Your task to perform on an android device: Clear the cart on costco.com. Add "macbook pro 15 inch" to the cart on costco.com Image 0: 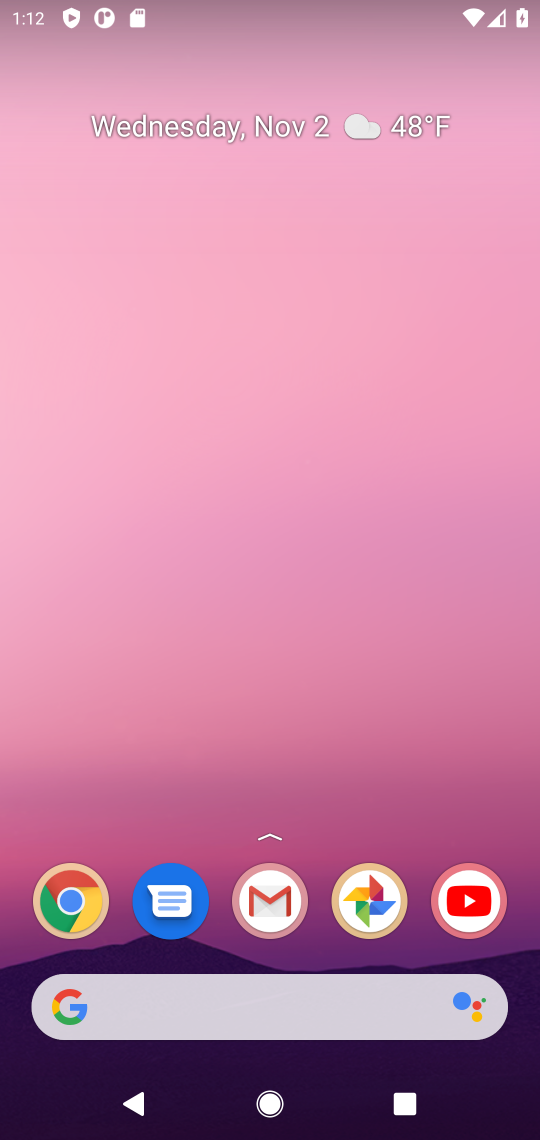
Step 0: drag from (313, 957) to (391, 97)
Your task to perform on an android device: Clear the cart on costco.com. Add "macbook pro 15 inch" to the cart on costco.com Image 1: 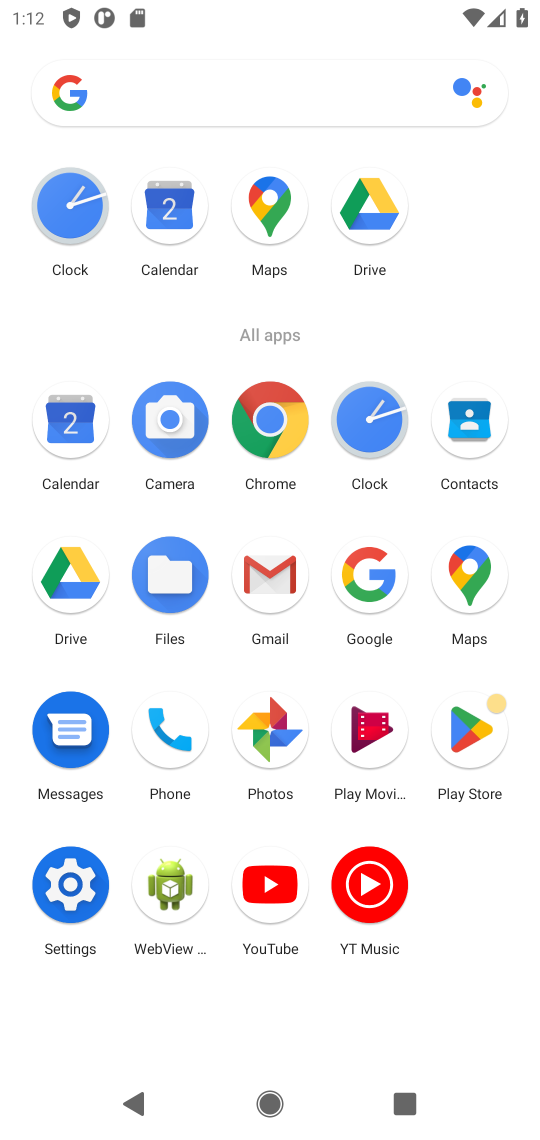
Step 1: click (266, 430)
Your task to perform on an android device: Clear the cart on costco.com. Add "macbook pro 15 inch" to the cart on costco.com Image 2: 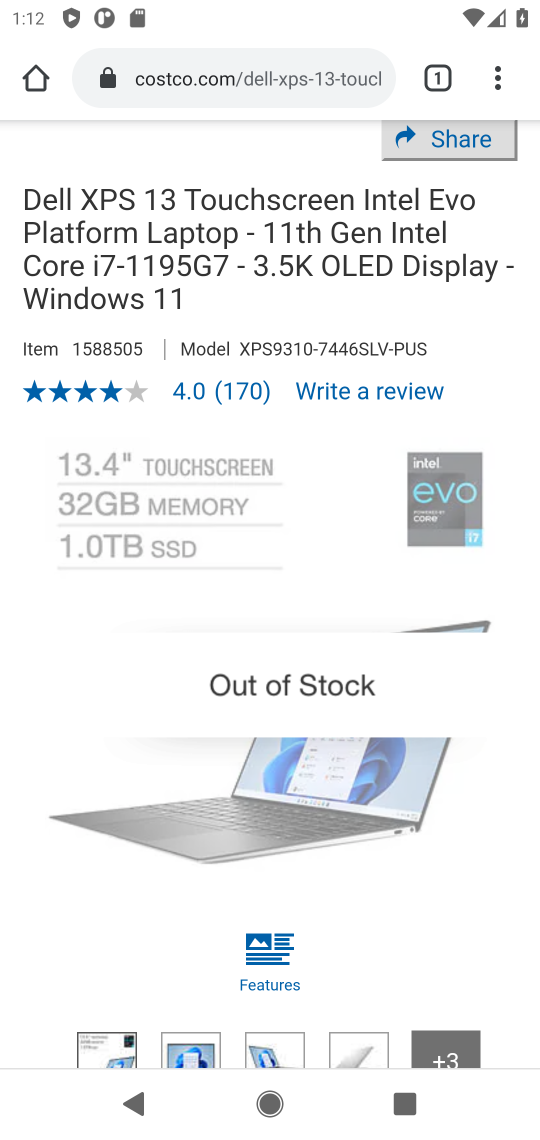
Step 2: click (242, 85)
Your task to perform on an android device: Clear the cart on costco.com. Add "macbook pro 15 inch" to the cart on costco.com Image 3: 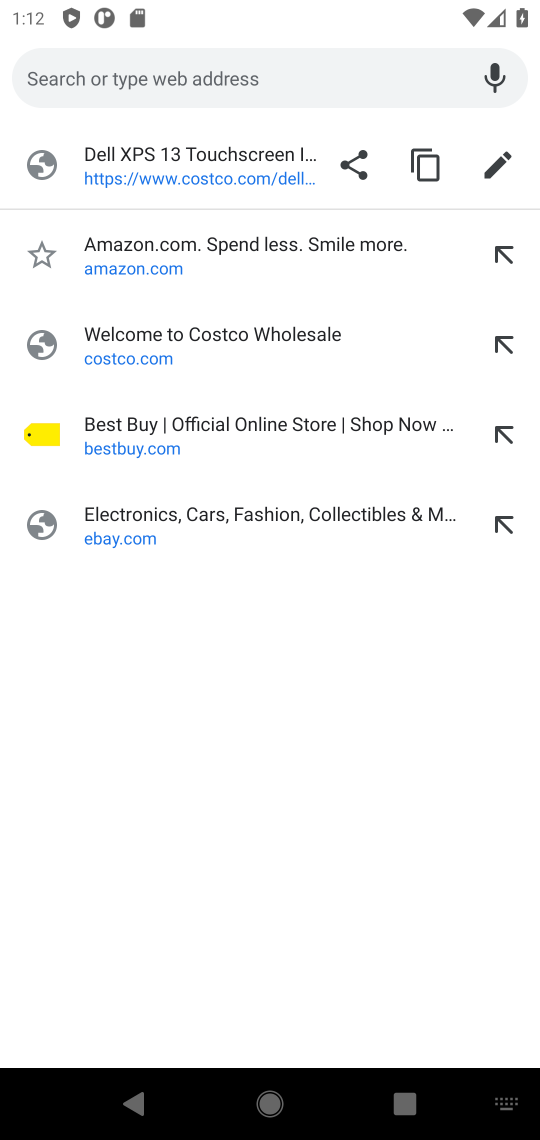
Step 3: type "costco.com"
Your task to perform on an android device: Clear the cart on costco.com. Add "macbook pro 15 inch" to the cart on costco.com Image 4: 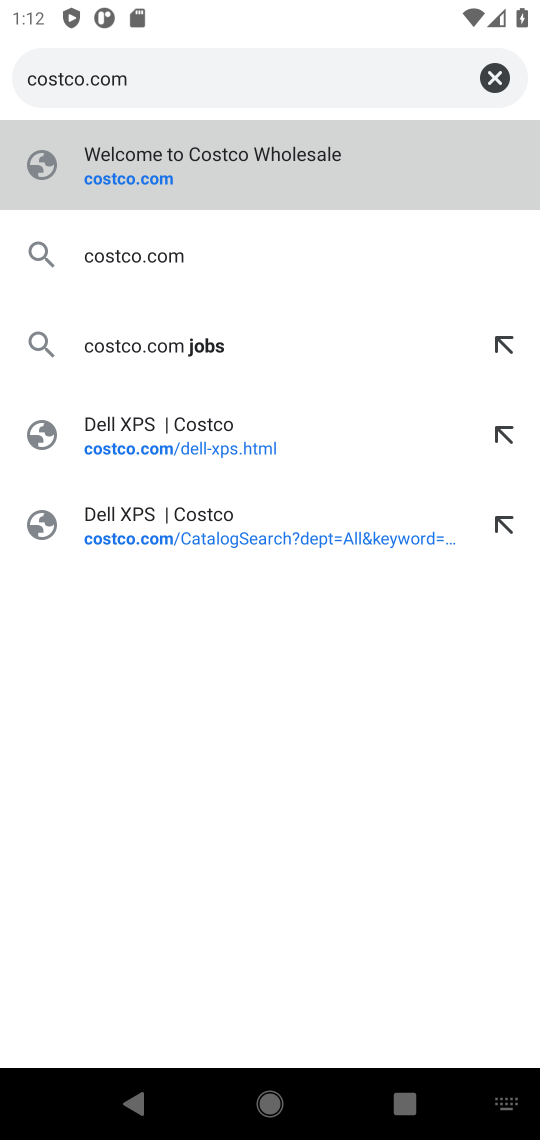
Step 4: press enter
Your task to perform on an android device: Clear the cart on costco.com. Add "macbook pro 15 inch" to the cart on costco.com Image 5: 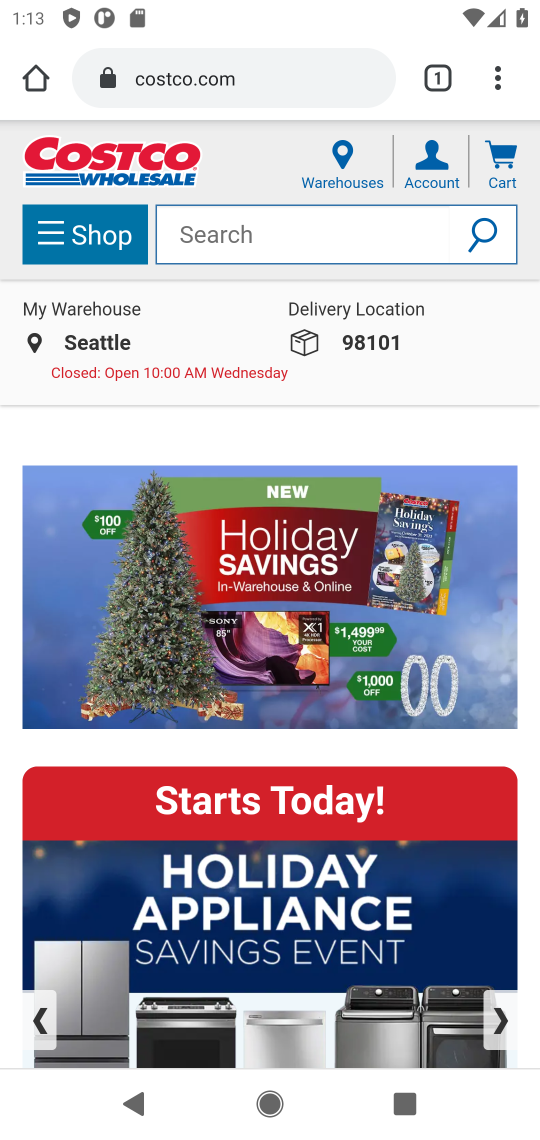
Step 5: click (504, 166)
Your task to perform on an android device: Clear the cart on costco.com. Add "macbook pro 15 inch" to the cart on costco.com Image 6: 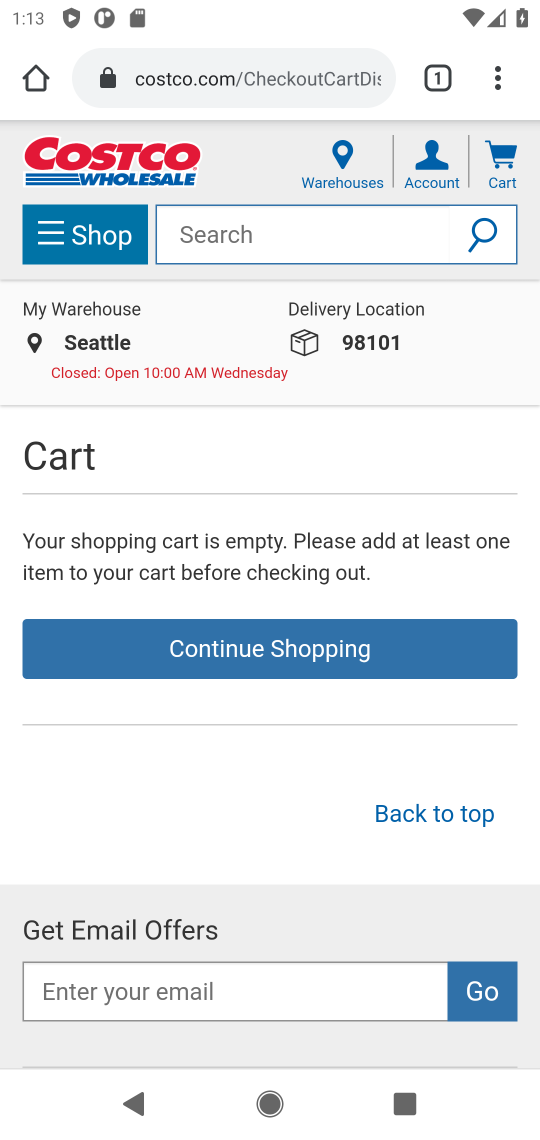
Step 6: click (287, 220)
Your task to perform on an android device: Clear the cart on costco.com. Add "macbook pro 15 inch" to the cart on costco.com Image 7: 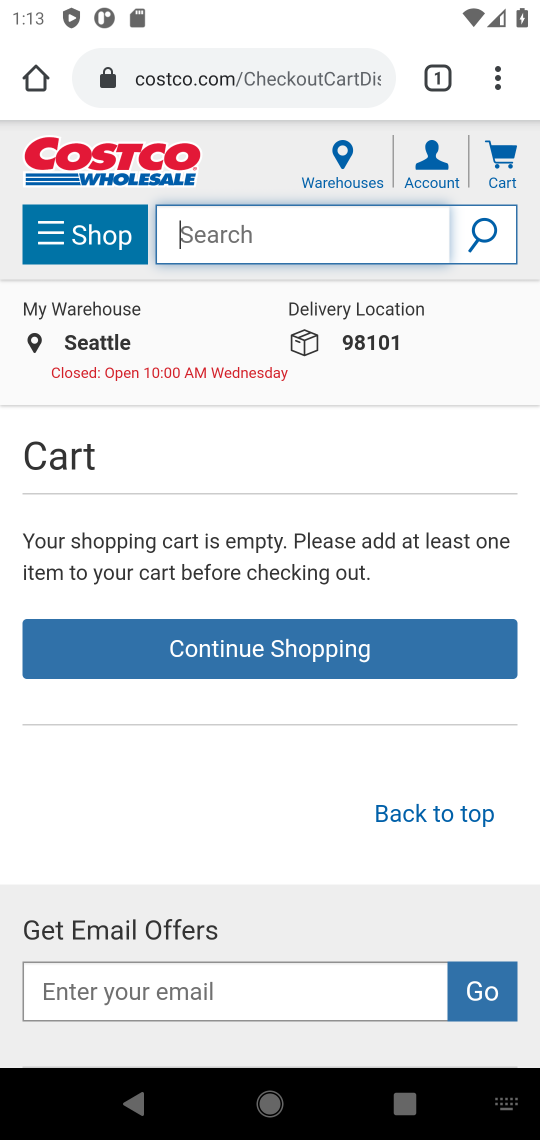
Step 7: type "macbook pron15 inch"
Your task to perform on an android device: Clear the cart on costco.com. Add "macbook pro 15 inch" to the cart on costco.com Image 8: 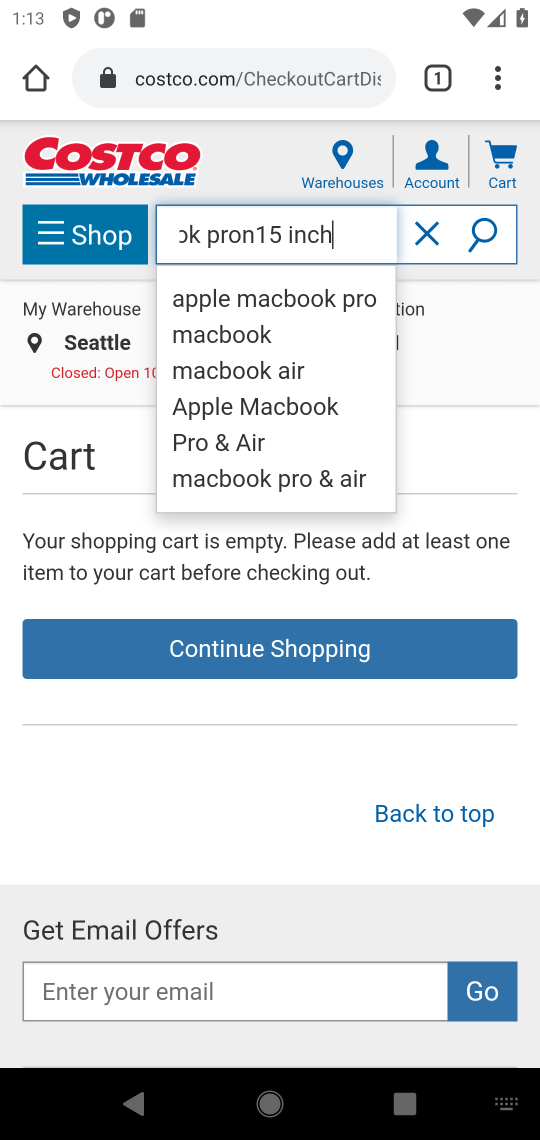
Step 8: press enter
Your task to perform on an android device: Clear the cart on costco.com. Add "macbook pro 15 inch" to the cart on costco.com Image 9: 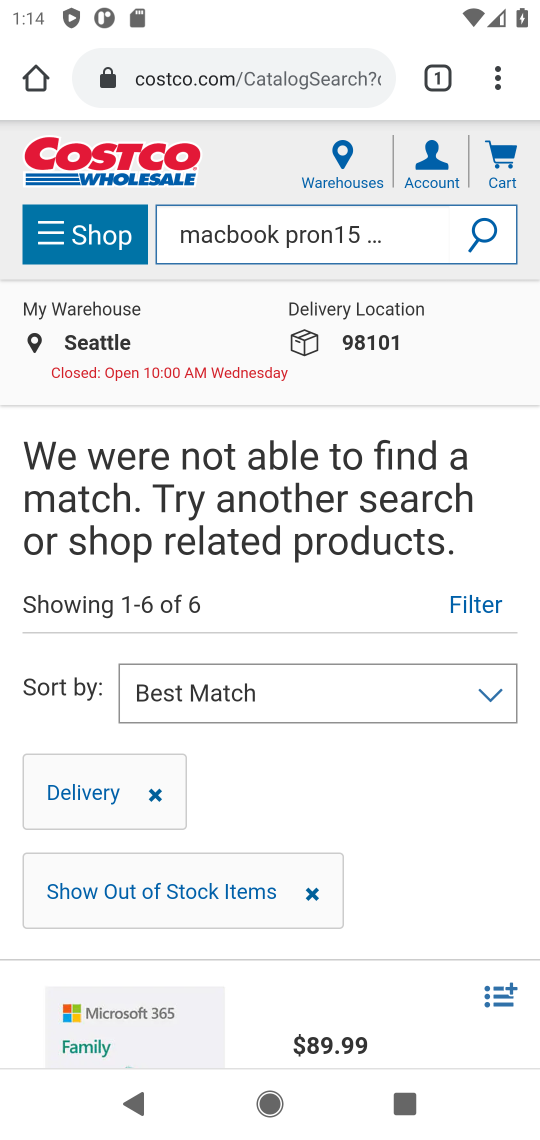
Step 9: click (384, 232)
Your task to perform on an android device: Clear the cart on costco.com. Add "macbook pro 15 inch" to the cart on costco.com Image 10: 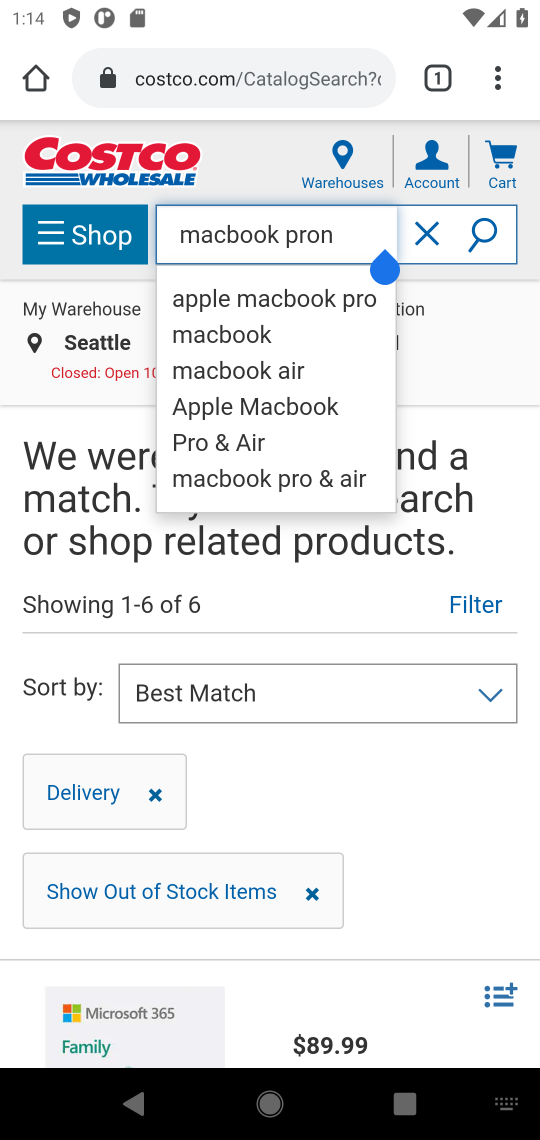
Step 10: click (426, 227)
Your task to perform on an android device: Clear the cart on costco.com. Add "macbook pro 15 inch" to the cart on costco.com Image 11: 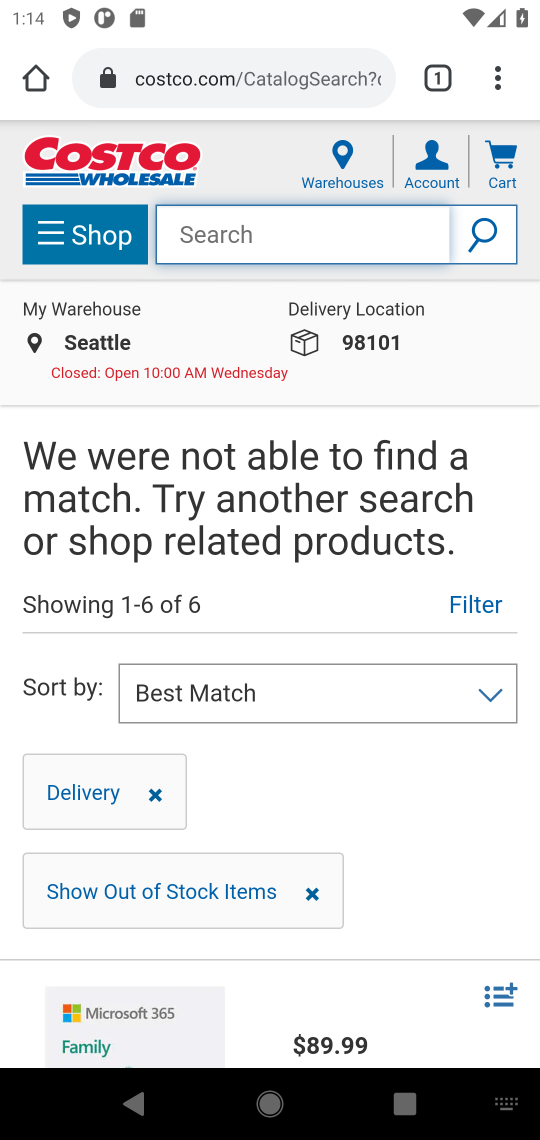
Step 11: type "macbook pro 15 inch"
Your task to perform on an android device: Clear the cart on costco.com. Add "macbook pro 15 inch" to the cart on costco.com Image 12: 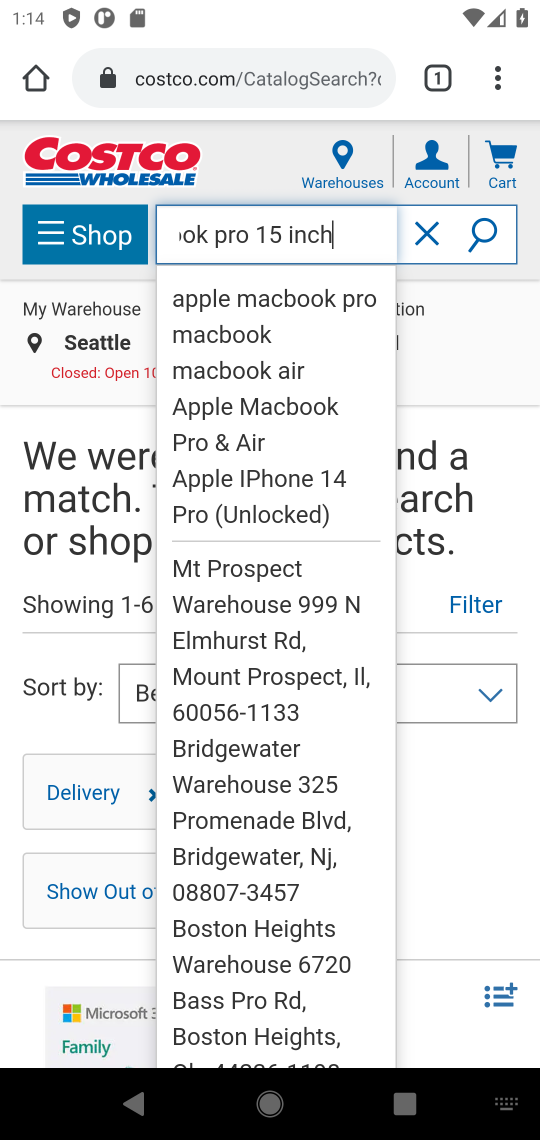
Step 12: press enter
Your task to perform on an android device: Clear the cart on costco.com. Add "macbook pro 15 inch" to the cart on costco.com Image 13: 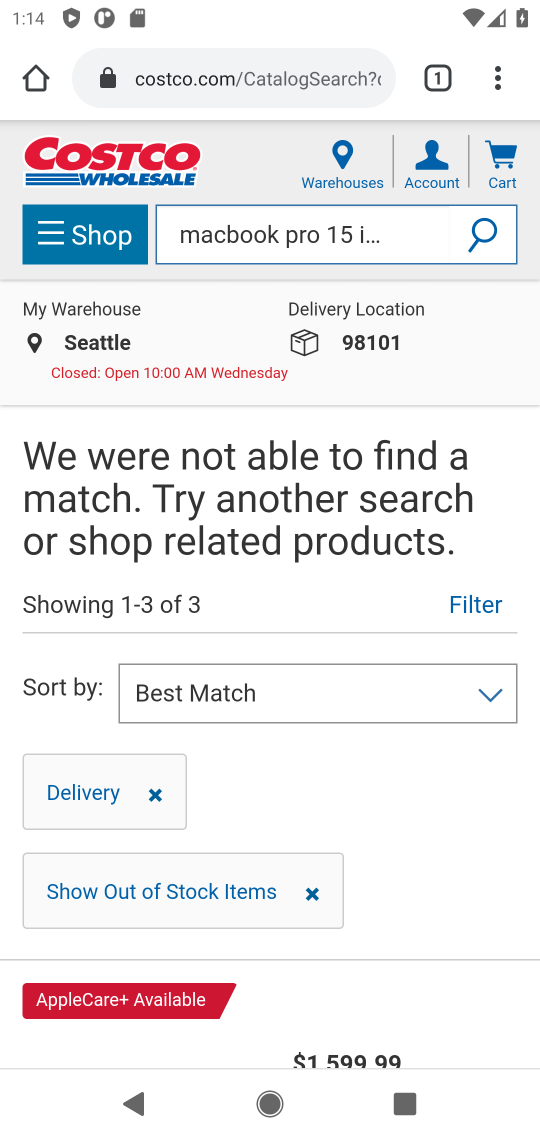
Step 13: task complete